Your task to perform on an android device: star an email in the gmail app Image 0: 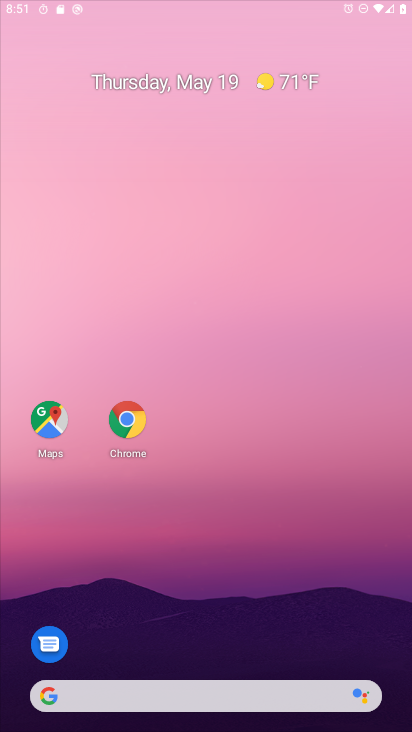
Step 0: drag from (230, 515) to (239, 318)
Your task to perform on an android device: star an email in the gmail app Image 1: 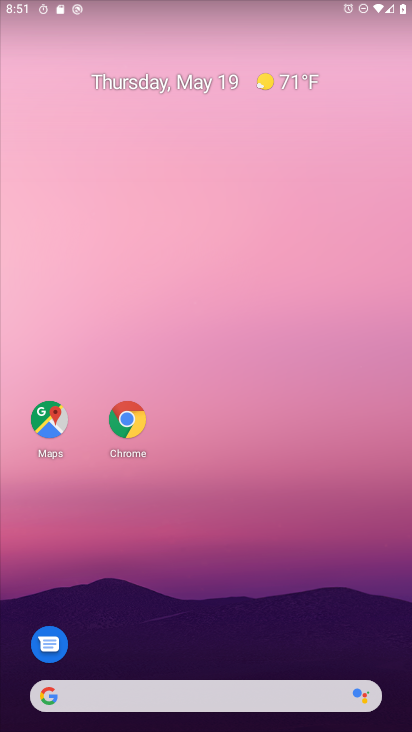
Step 1: drag from (212, 669) to (235, 273)
Your task to perform on an android device: star an email in the gmail app Image 2: 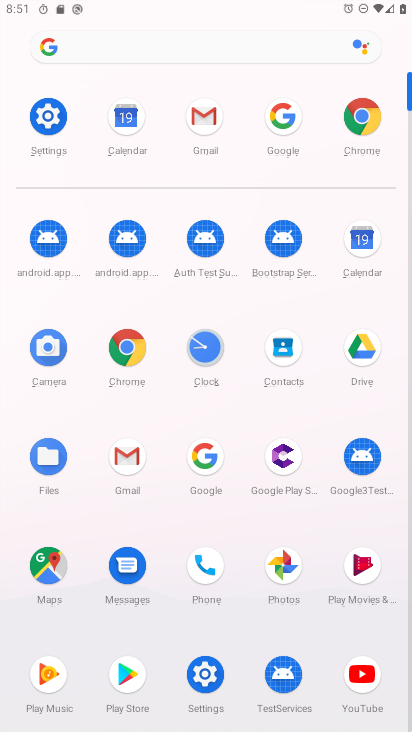
Step 2: click (137, 451)
Your task to perform on an android device: star an email in the gmail app Image 3: 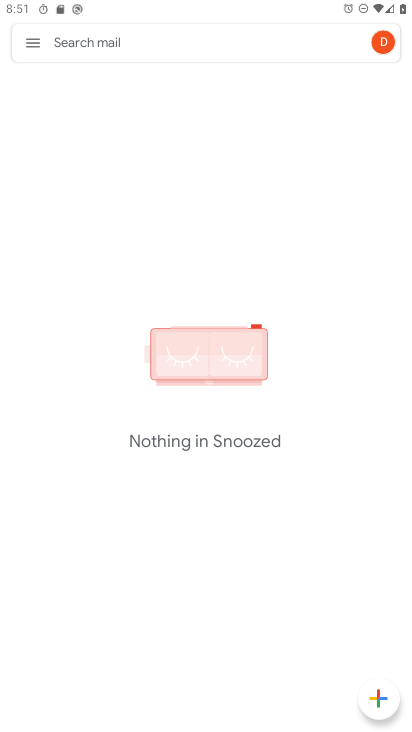
Step 3: click (21, 50)
Your task to perform on an android device: star an email in the gmail app Image 4: 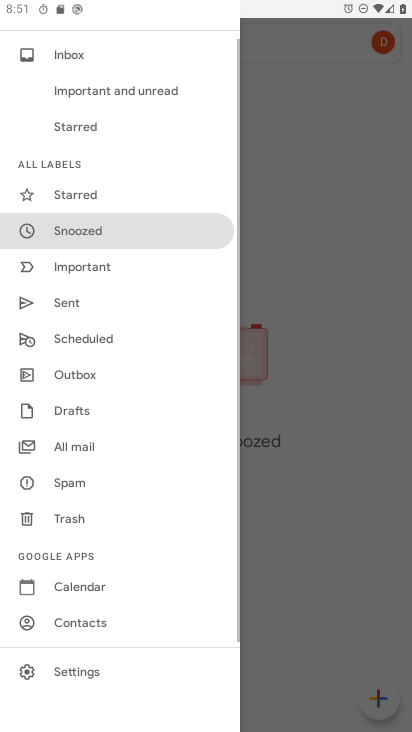
Step 4: click (87, 58)
Your task to perform on an android device: star an email in the gmail app Image 5: 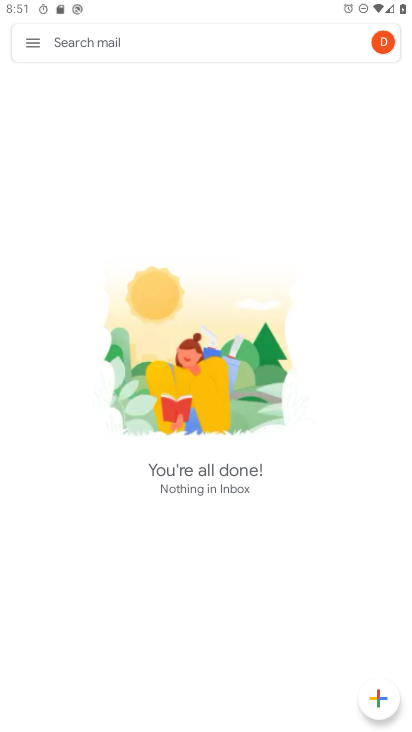
Step 5: task complete